Your task to perform on an android device: move an email to a new category in the gmail app Image 0: 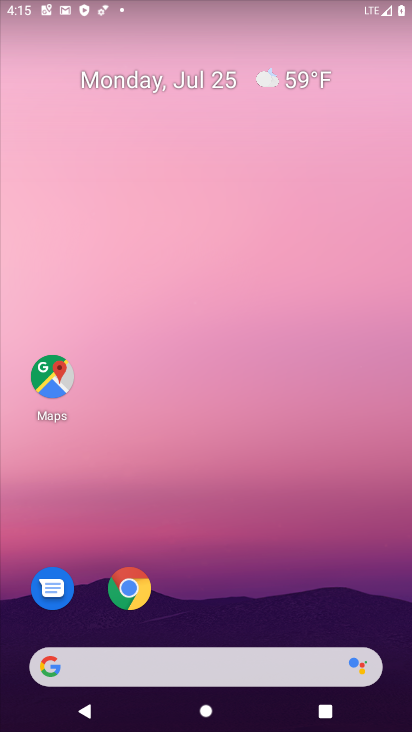
Step 0: drag from (297, 564) to (312, 158)
Your task to perform on an android device: move an email to a new category in the gmail app Image 1: 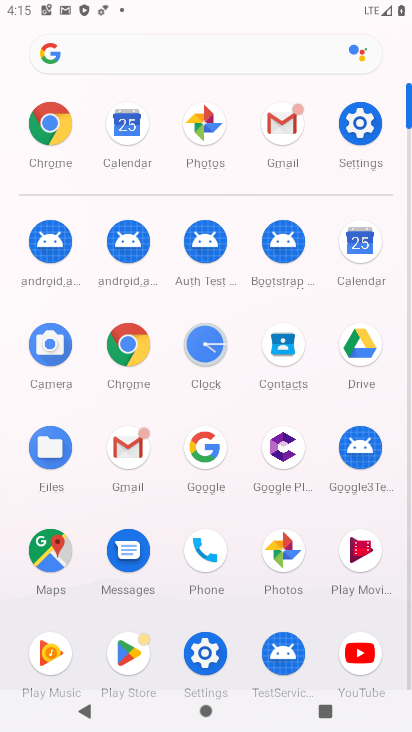
Step 1: click (137, 438)
Your task to perform on an android device: move an email to a new category in the gmail app Image 2: 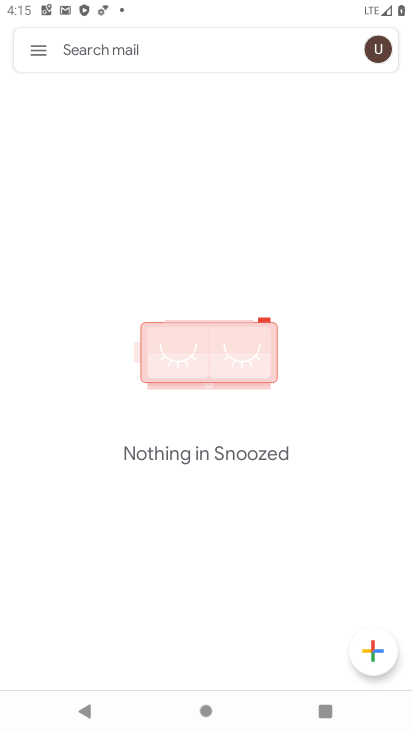
Step 2: click (47, 54)
Your task to perform on an android device: move an email to a new category in the gmail app Image 3: 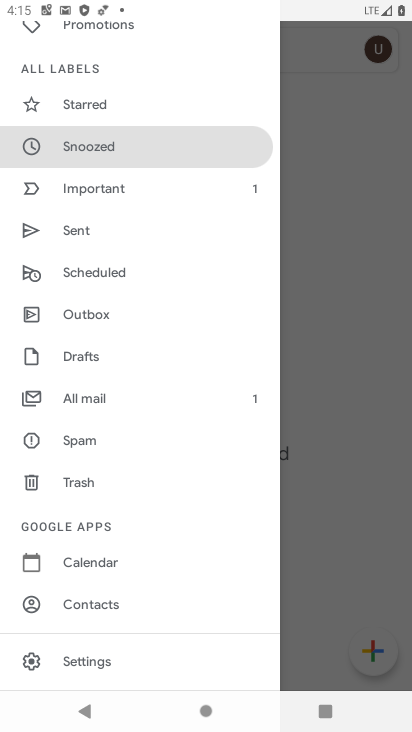
Step 3: drag from (159, 56) to (142, 516)
Your task to perform on an android device: move an email to a new category in the gmail app Image 4: 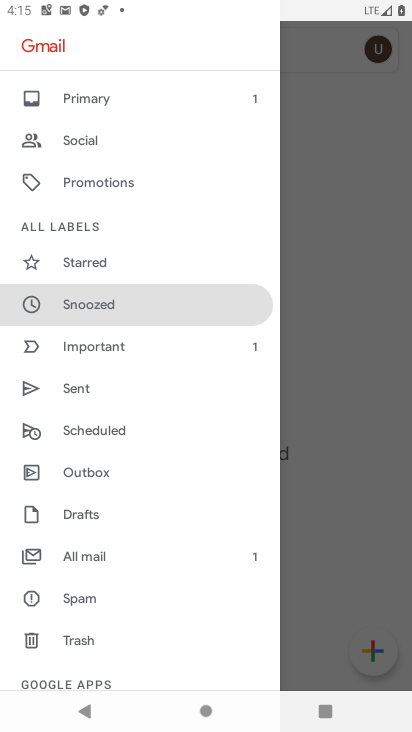
Step 4: click (118, 86)
Your task to perform on an android device: move an email to a new category in the gmail app Image 5: 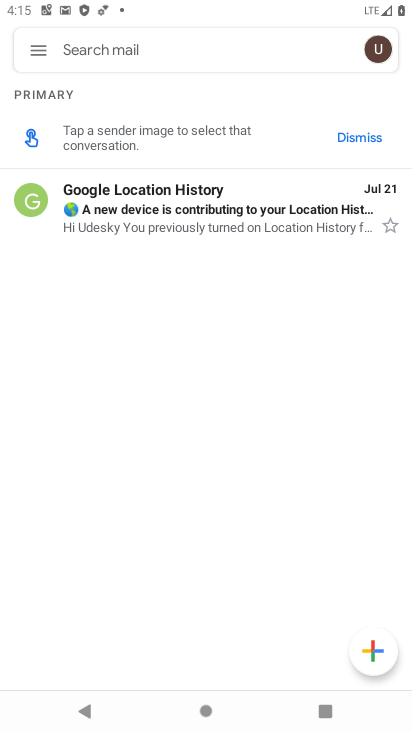
Step 5: click (41, 191)
Your task to perform on an android device: move an email to a new category in the gmail app Image 6: 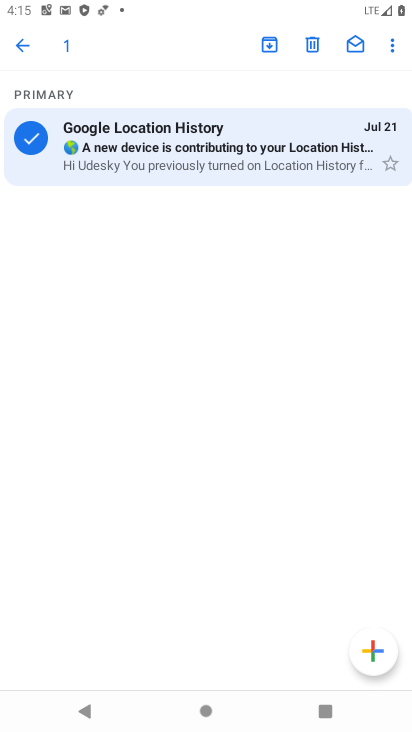
Step 6: click (384, 39)
Your task to perform on an android device: move an email to a new category in the gmail app Image 7: 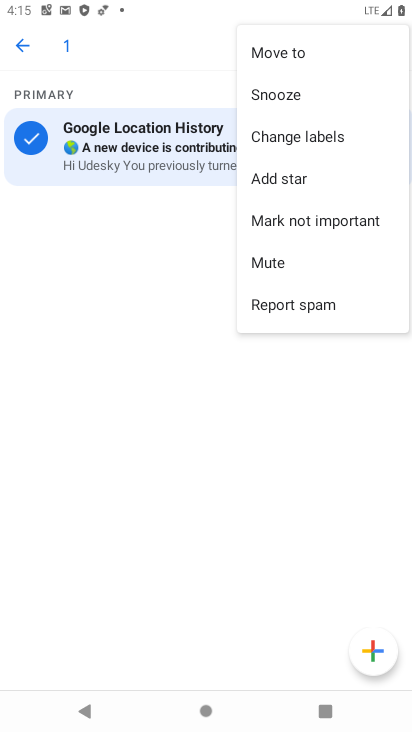
Step 7: click (309, 52)
Your task to perform on an android device: move an email to a new category in the gmail app Image 8: 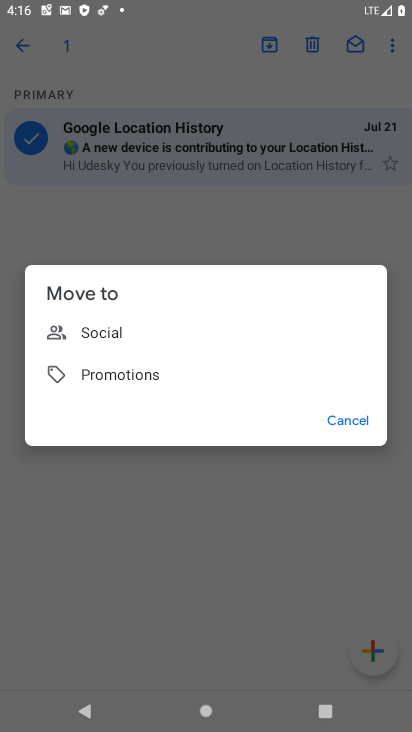
Step 8: click (125, 367)
Your task to perform on an android device: move an email to a new category in the gmail app Image 9: 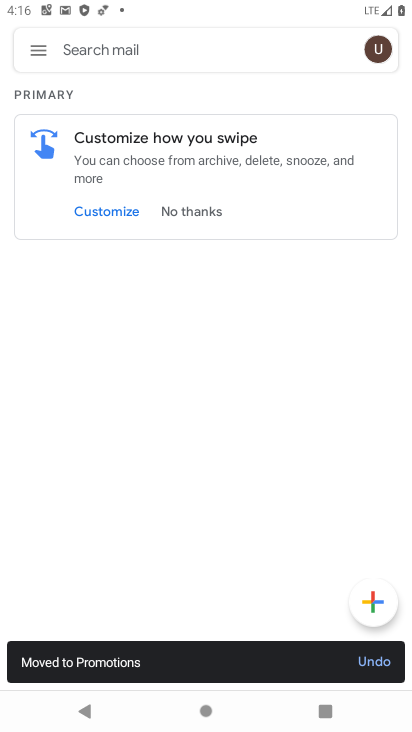
Step 9: task complete